Your task to perform on an android device: open chrome privacy settings Image 0: 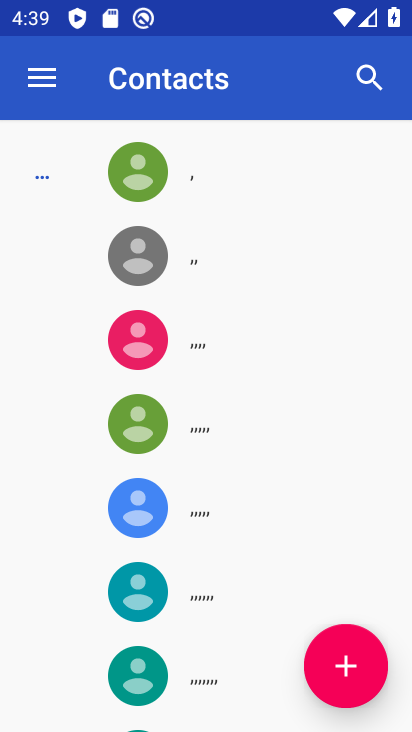
Step 0: press home button
Your task to perform on an android device: open chrome privacy settings Image 1: 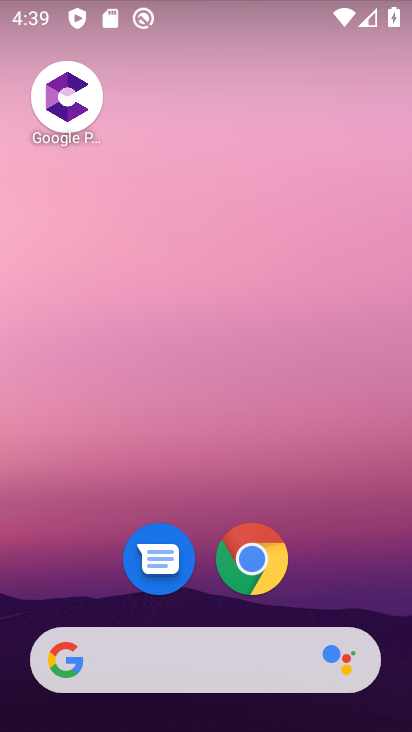
Step 1: drag from (322, 582) to (276, 119)
Your task to perform on an android device: open chrome privacy settings Image 2: 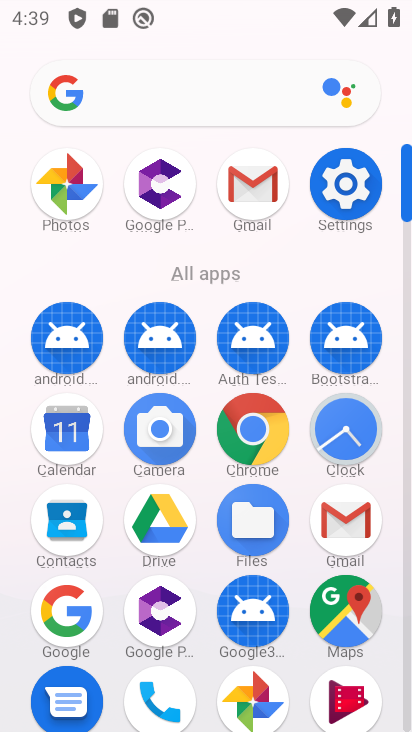
Step 2: click (262, 450)
Your task to perform on an android device: open chrome privacy settings Image 3: 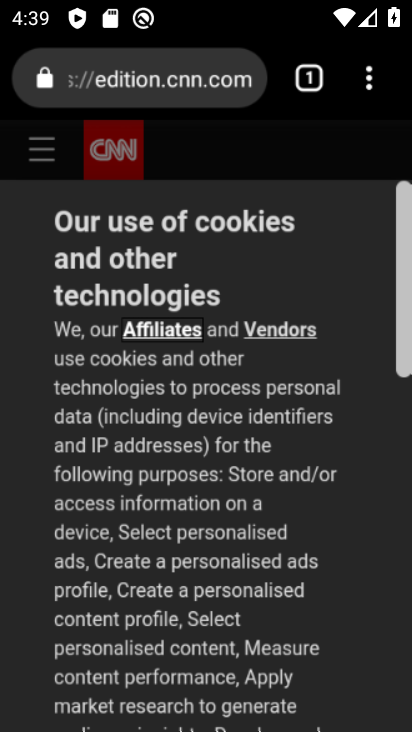
Step 3: click (370, 90)
Your task to perform on an android device: open chrome privacy settings Image 4: 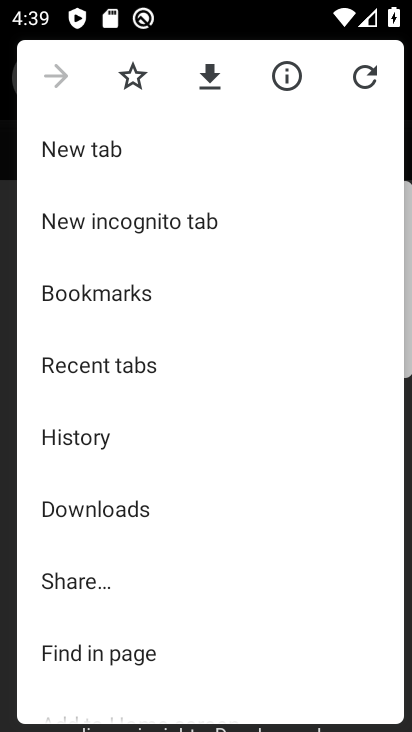
Step 4: drag from (101, 632) to (120, 311)
Your task to perform on an android device: open chrome privacy settings Image 5: 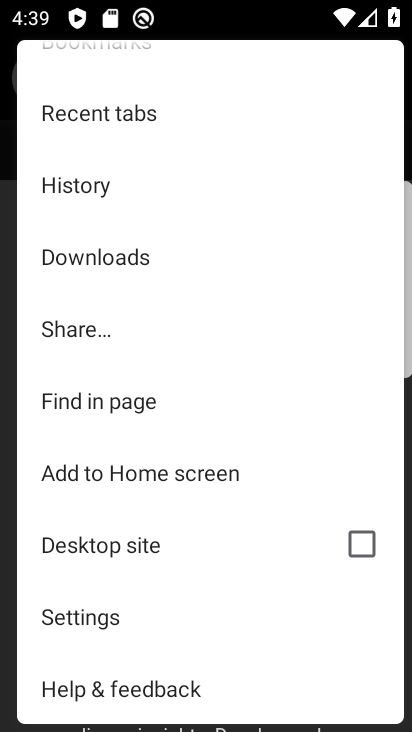
Step 5: click (100, 623)
Your task to perform on an android device: open chrome privacy settings Image 6: 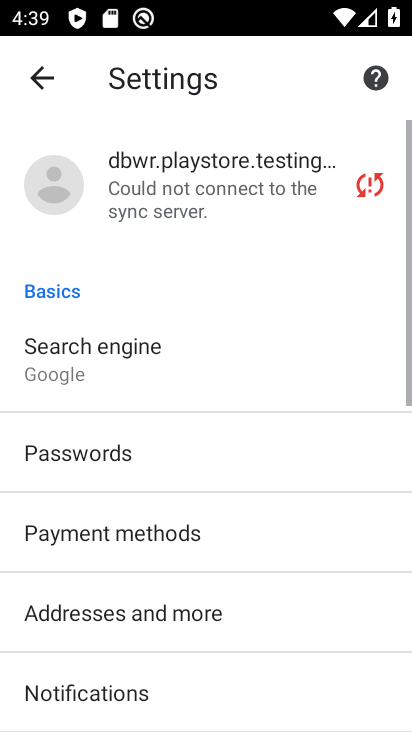
Step 6: drag from (136, 660) to (214, 264)
Your task to perform on an android device: open chrome privacy settings Image 7: 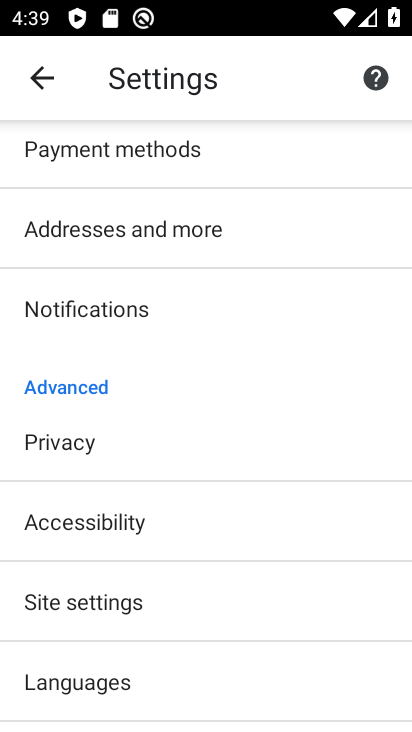
Step 7: click (95, 449)
Your task to perform on an android device: open chrome privacy settings Image 8: 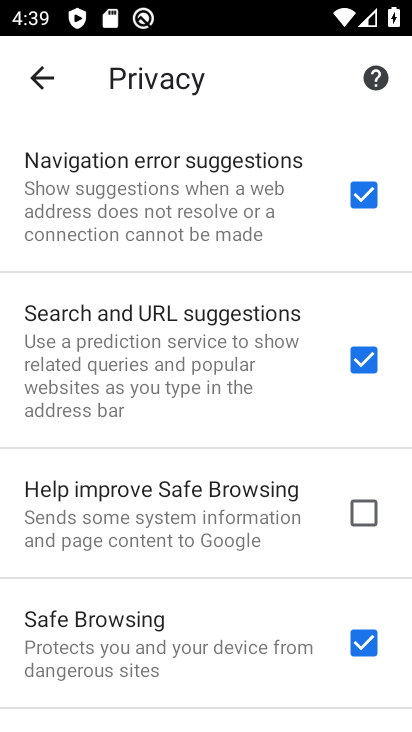
Step 8: task complete